Your task to perform on an android device: Go to Android settings Image 0: 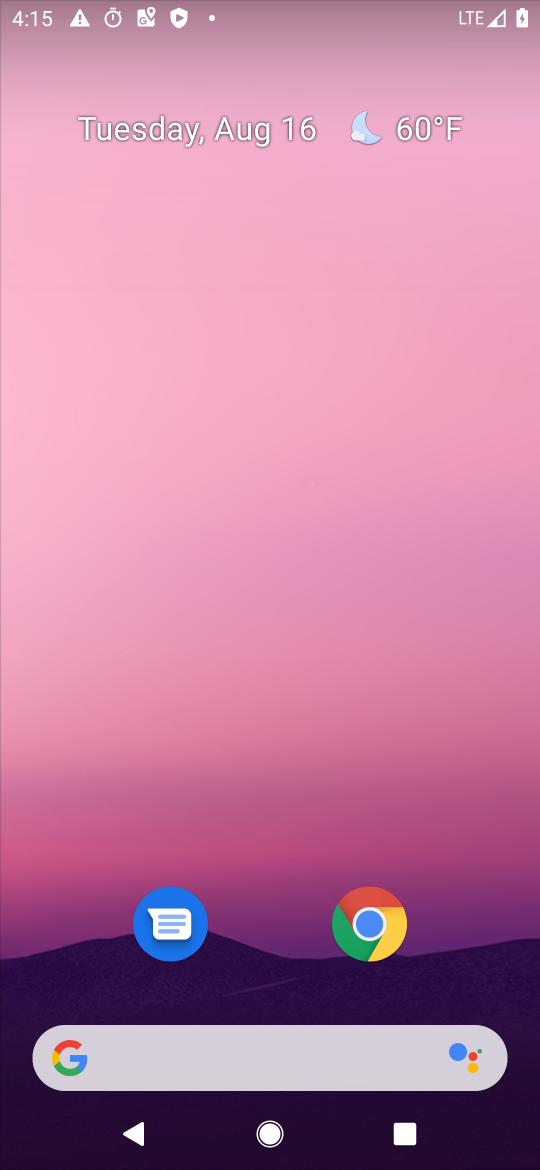
Step 0: drag from (261, 1009) to (355, 27)
Your task to perform on an android device: Go to Android settings Image 1: 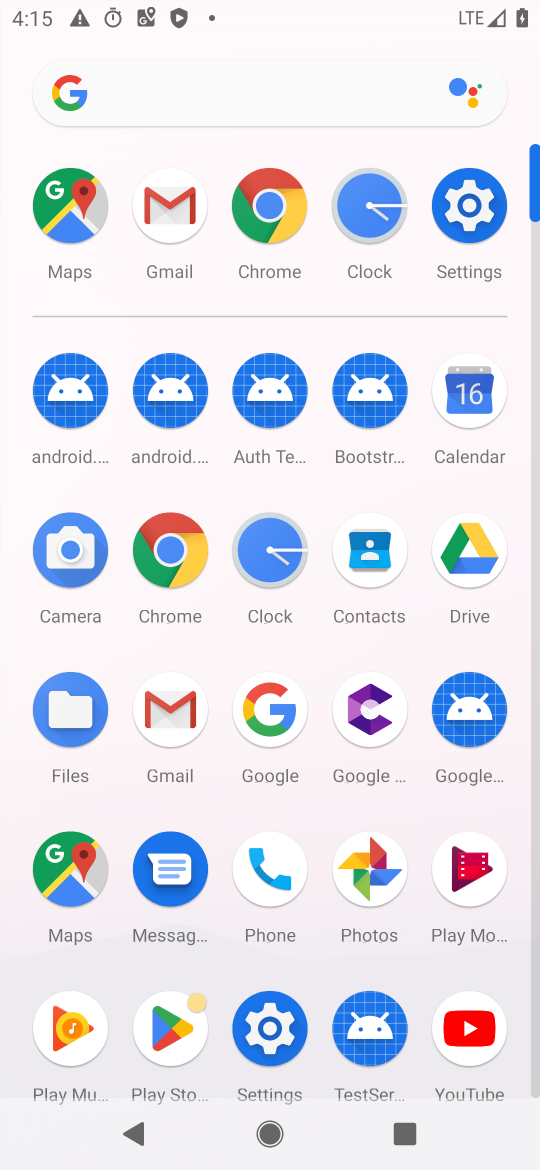
Step 1: click (471, 222)
Your task to perform on an android device: Go to Android settings Image 2: 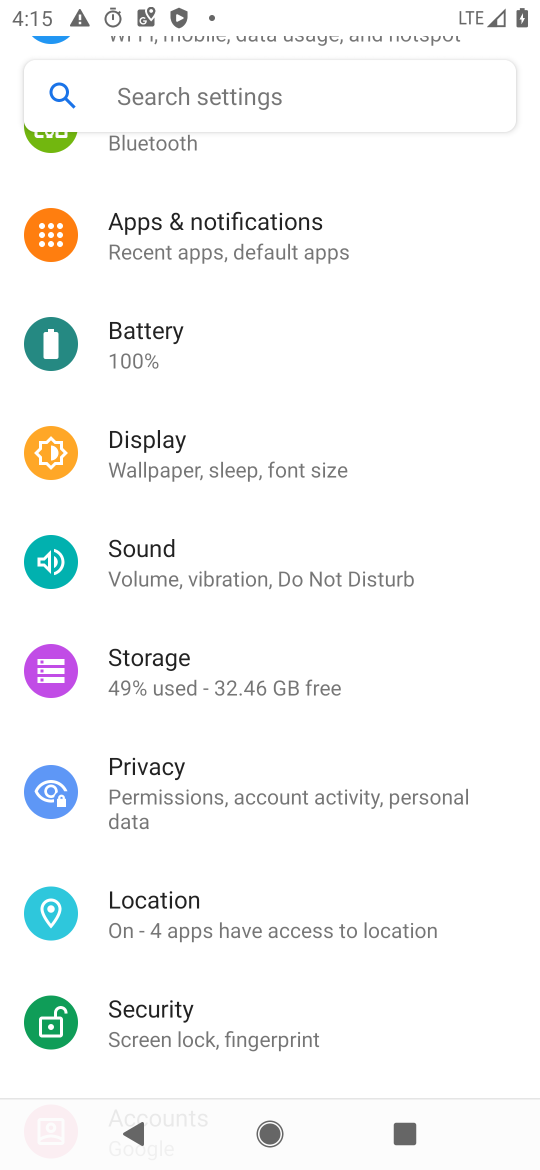
Step 2: task complete